Your task to perform on an android device: Open calendar and show me the third week of next month Image 0: 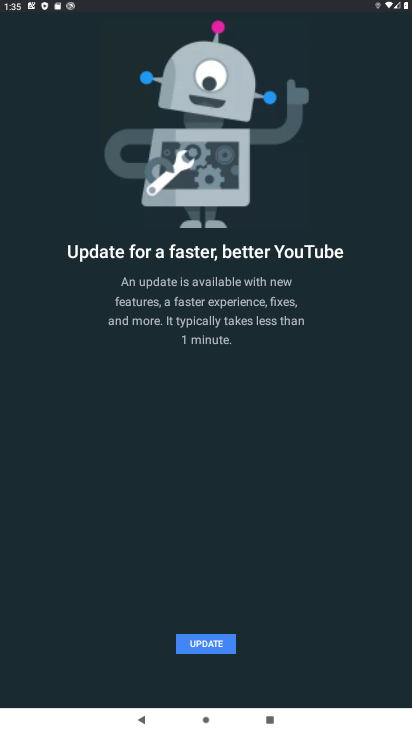
Step 0: press home button
Your task to perform on an android device: Open calendar and show me the third week of next month Image 1: 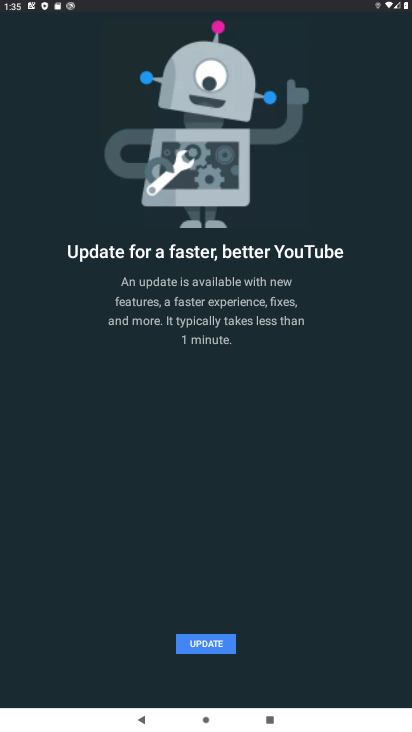
Step 1: press home button
Your task to perform on an android device: Open calendar and show me the third week of next month Image 2: 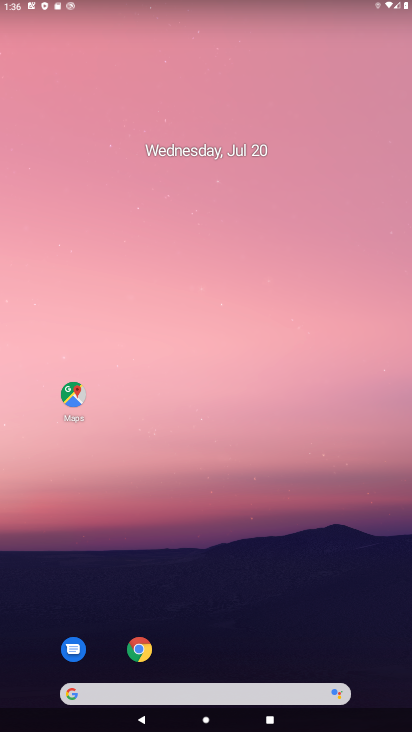
Step 2: drag from (369, 677) to (167, 22)
Your task to perform on an android device: Open calendar and show me the third week of next month Image 3: 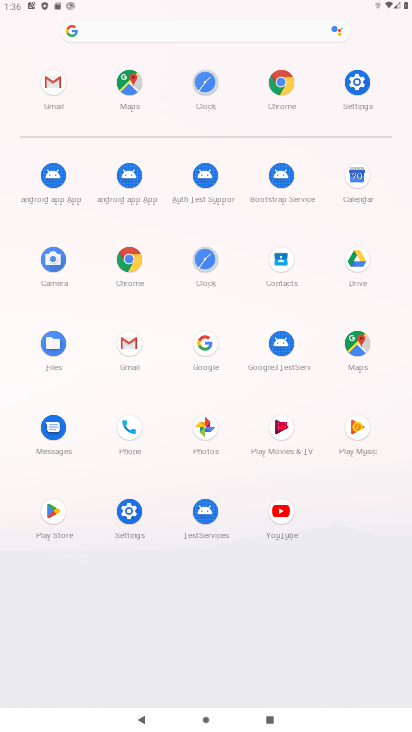
Step 3: click (347, 182)
Your task to perform on an android device: Open calendar and show me the third week of next month Image 4: 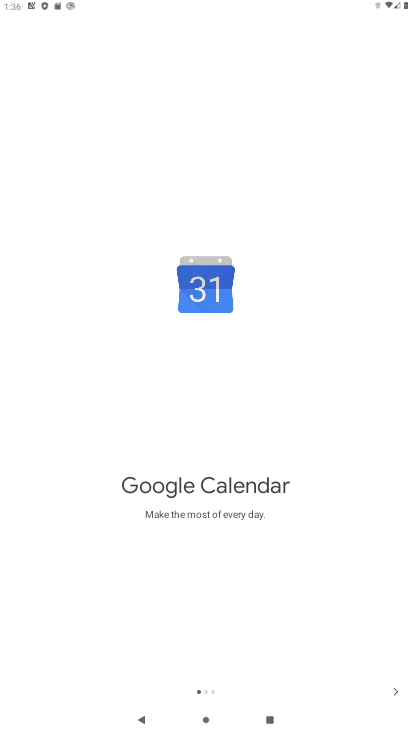
Step 4: click (391, 689)
Your task to perform on an android device: Open calendar and show me the third week of next month Image 5: 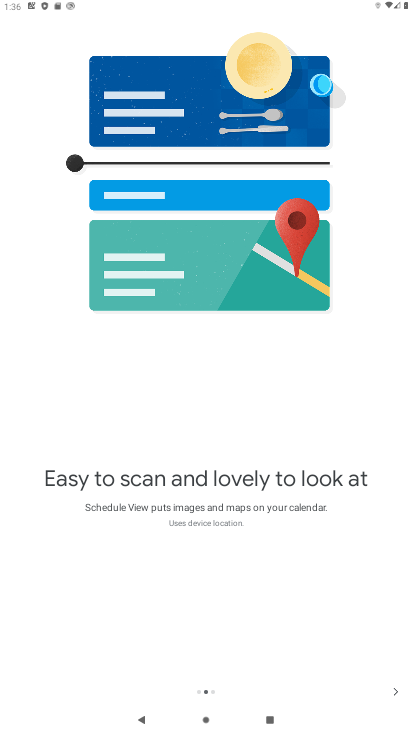
Step 5: click (391, 687)
Your task to perform on an android device: Open calendar and show me the third week of next month Image 6: 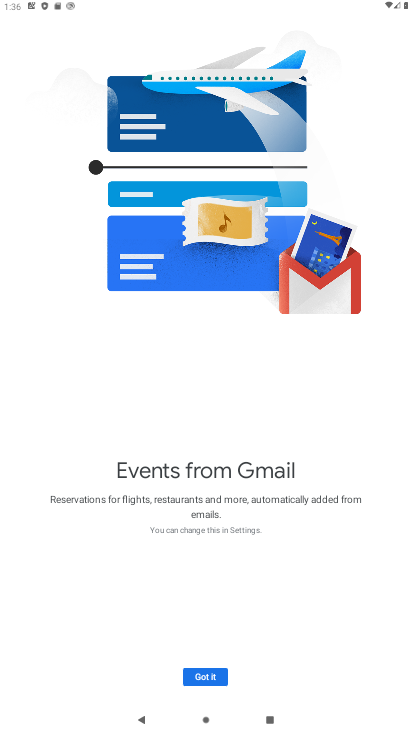
Step 6: click (205, 682)
Your task to perform on an android device: Open calendar and show me the third week of next month Image 7: 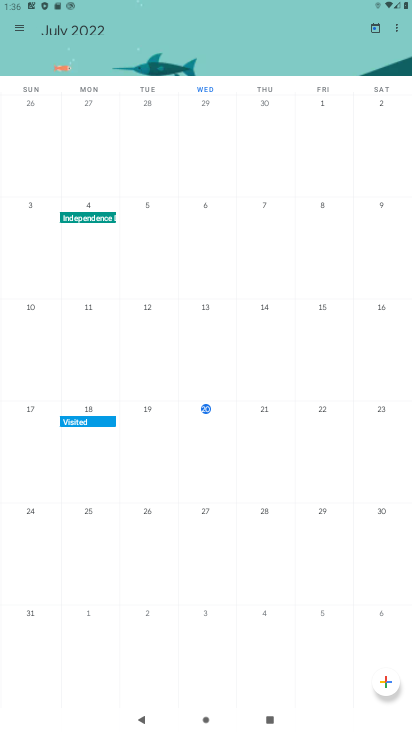
Step 7: drag from (372, 297) to (48, 358)
Your task to perform on an android device: Open calendar and show me the third week of next month Image 8: 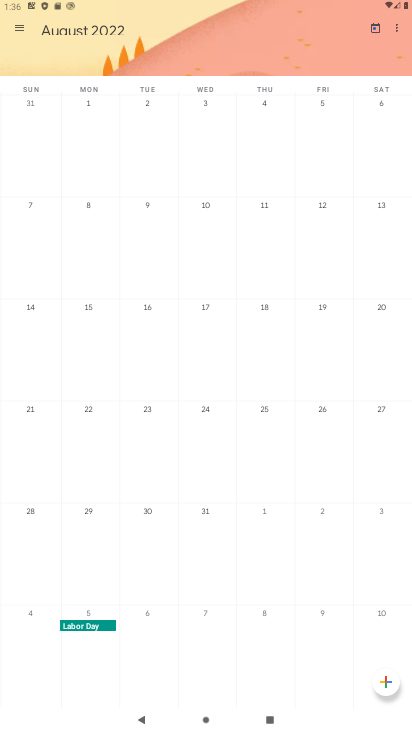
Step 8: click (97, 308)
Your task to perform on an android device: Open calendar and show me the third week of next month Image 9: 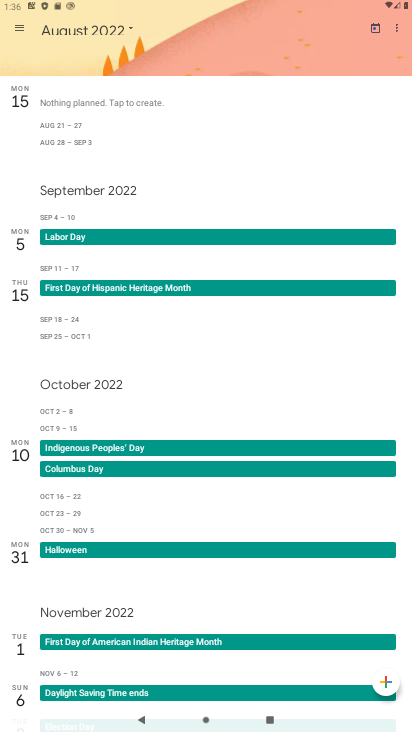
Step 9: task complete